Your task to perform on an android device: move a message to another label in the gmail app Image 0: 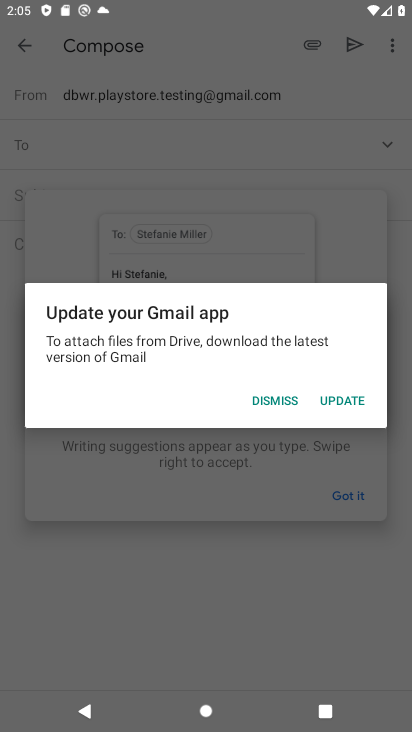
Step 0: press home button
Your task to perform on an android device: move a message to another label in the gmail app Image 1: 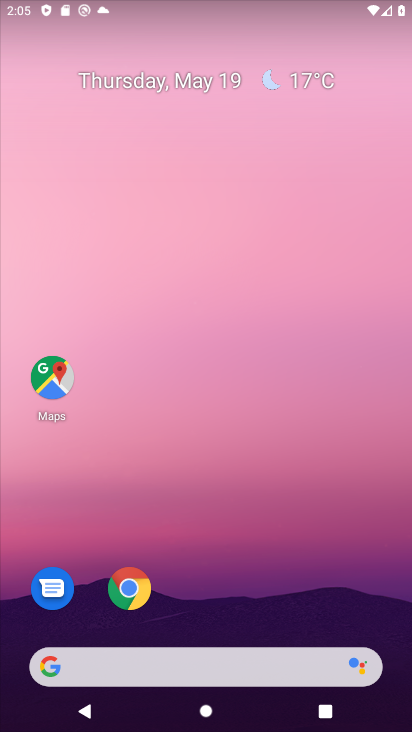
Step 1: drag from (234, 582) to (289, 209)
Your task to perform on an android device: move a message to another label in the gmail app Image 2: 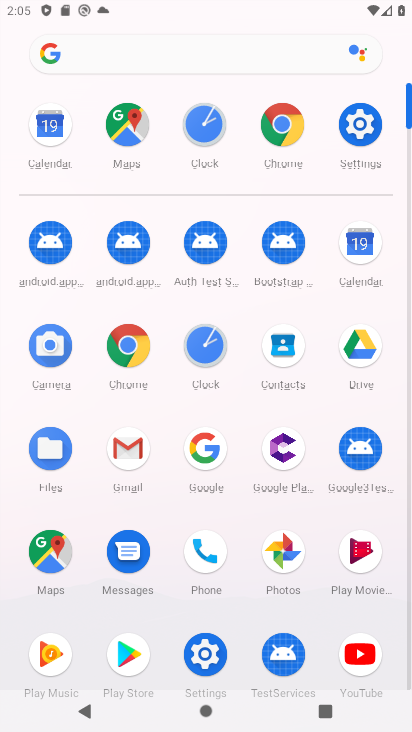
Step 2: click (138, 448)
Your task to perform on an android device: move a message to another label in the gmail app Image 3: 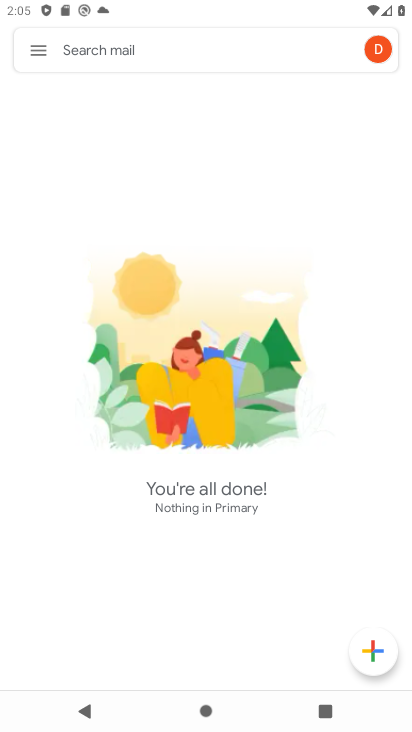
Step 3: click (50, 49)
Your task to perform on an android device: move a message to another label in the gmail app Image 4: 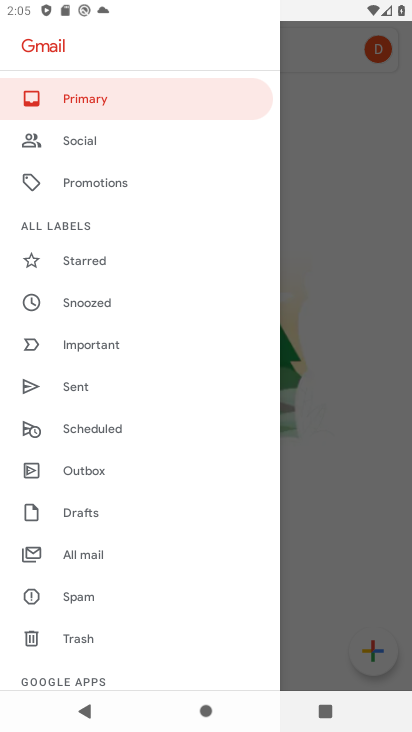
Step 4: click (101, 544)
Your task to perform on an android device: move a message to another label in the gmail app Image 5: 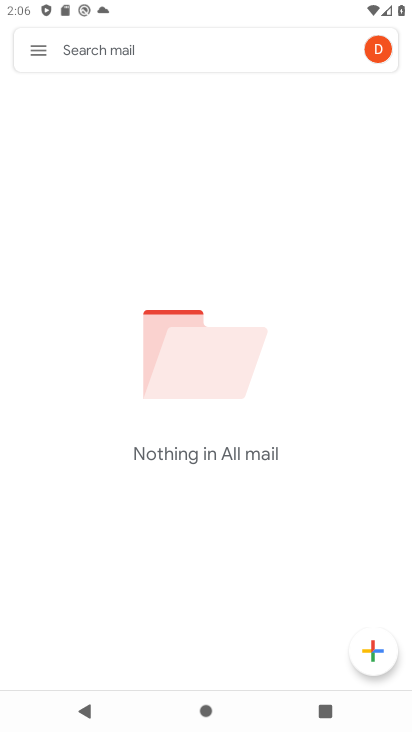
Step 5: task complete